Your task to perform on an android device: Go to Yahoo.com Image 0: 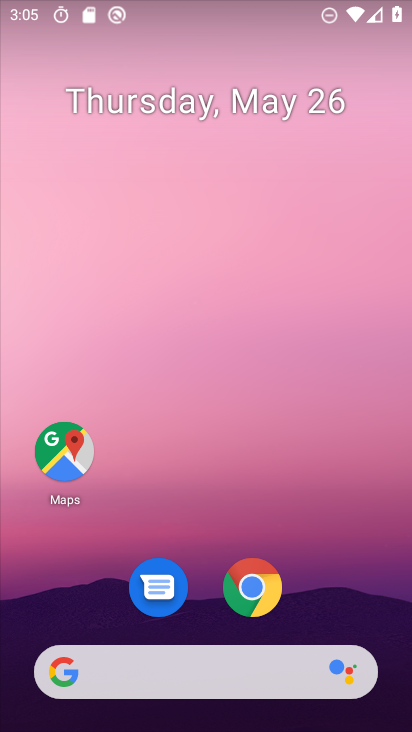
Step 0: click (243, 589)
Your task to perform on an android device: Go to Yahoo.com Image 1: 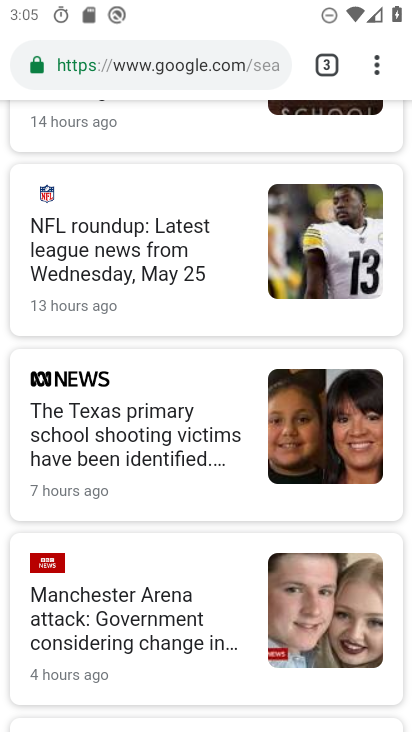
Step 1: click (209, 76)
Your task to perform on an android device: Go to Yahoo.com Image 2: 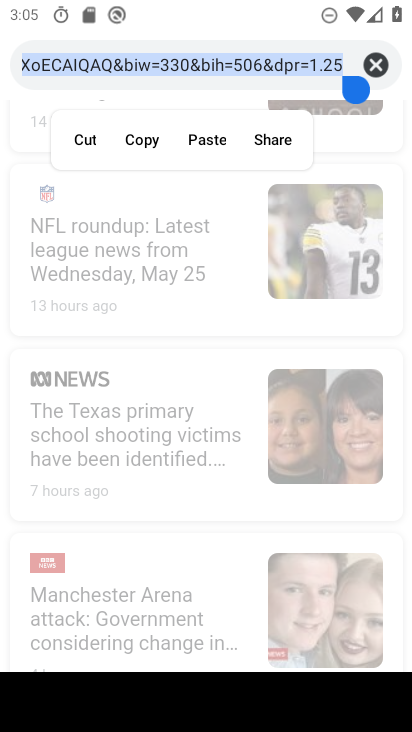
Step 2: type "yahoo.com"
Your task to perform on an android device: Go to Yahoo.com Image 3: 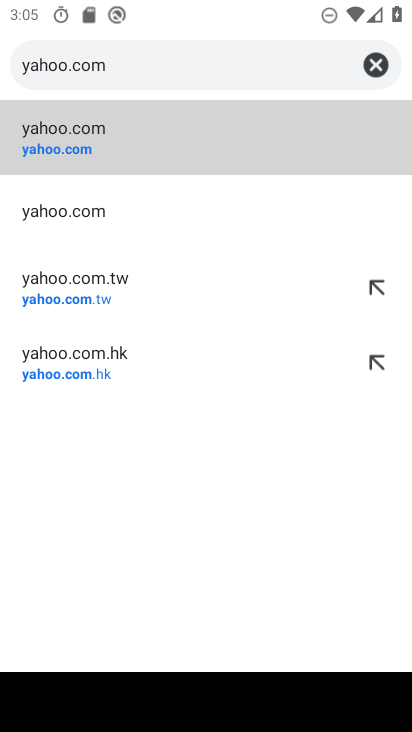
Step 3: click (64, 147)
Your task to perform on an android device: Go to Yahoo.com Image 4: 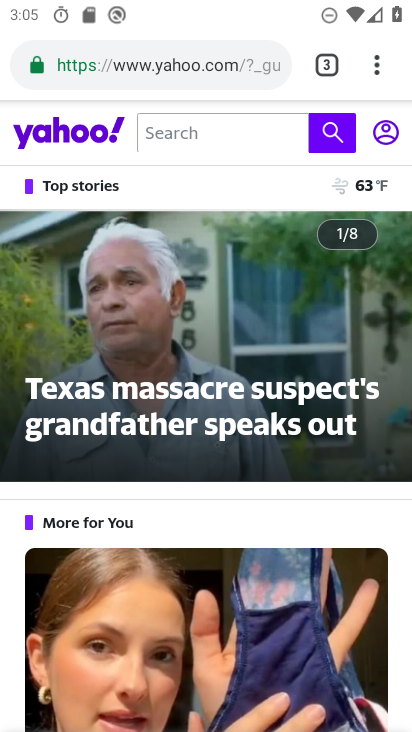
Step 4: task complete